Your task to perform on an android device: see tabs open on other devices in the chrome app Image 0: 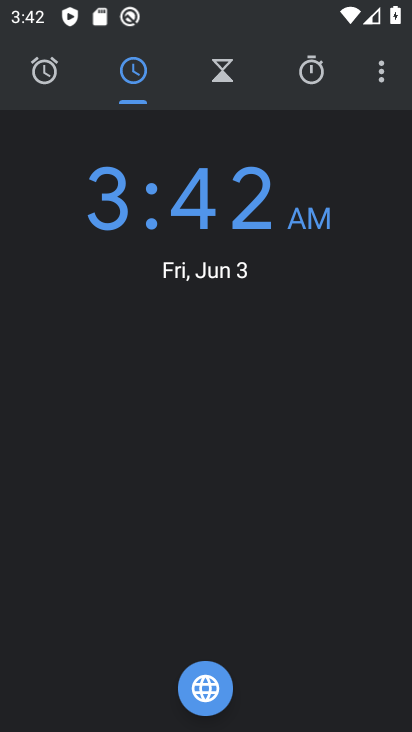
Step 0: press home button
Your task to perform on an android device: see tabs open on other devices in the chrome app Image 1: 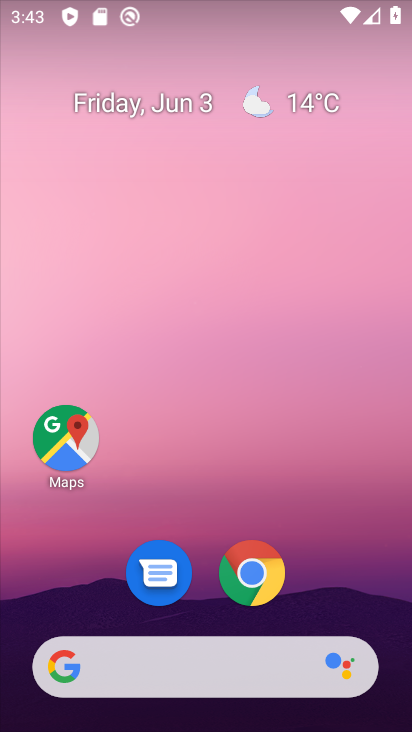
Step 1: click (244, 581)
Your task to perform on an android device: see tabs open on other devices in the chrome app Image 2: 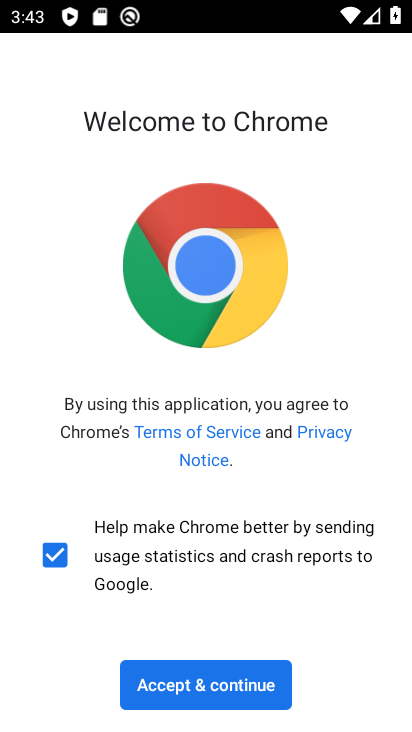
Step 2: click (187, 681)
Your task to perform on an android device: see tabs open on other devices in the chrome app Image 3: 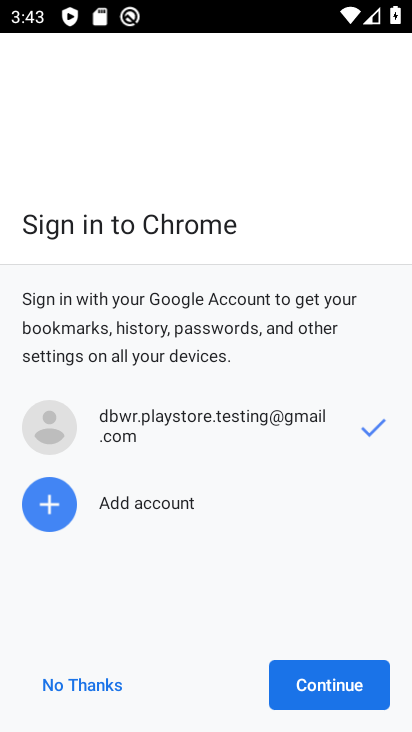
Step 3: click (298, 682)
Your task to perform on an android device: see tabs open on other devices in the chrome app Image 4: 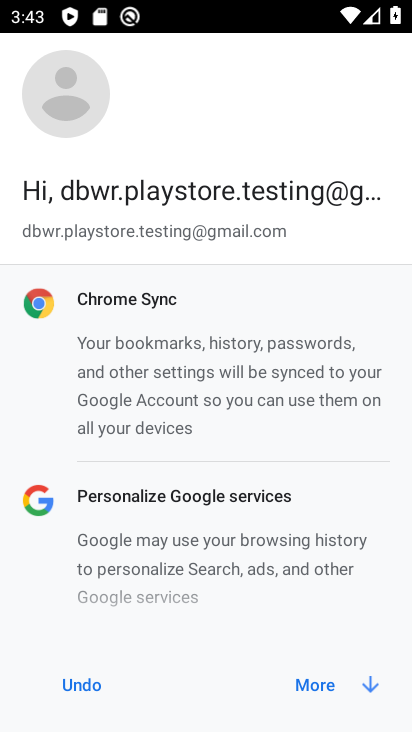
Step 4: click (310, 682)
Your task to perform on an android device: see tabs open on other devices in the chrome app Image 5: 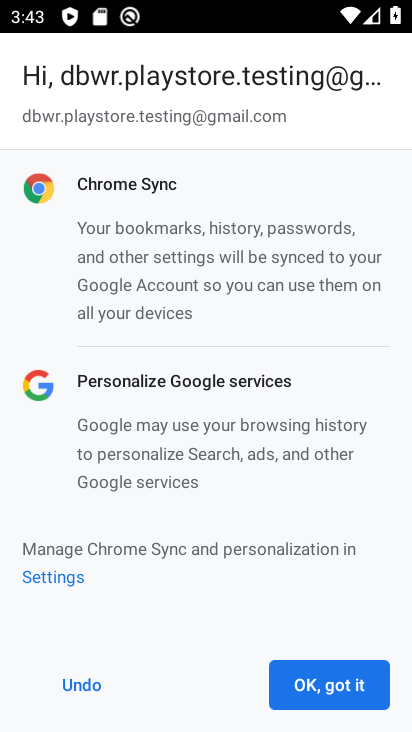
Step 5: click (335, 693)
Your task to perform on an android device: see tabs open on other devices in the chrome app Image 6: 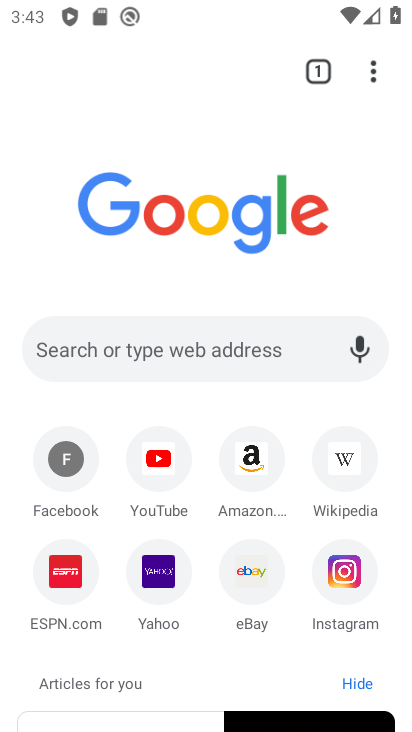
Step 6: click (368, 76)
Your task to perform on an android device: see tabs open on other devices in the chrome app Image 7: 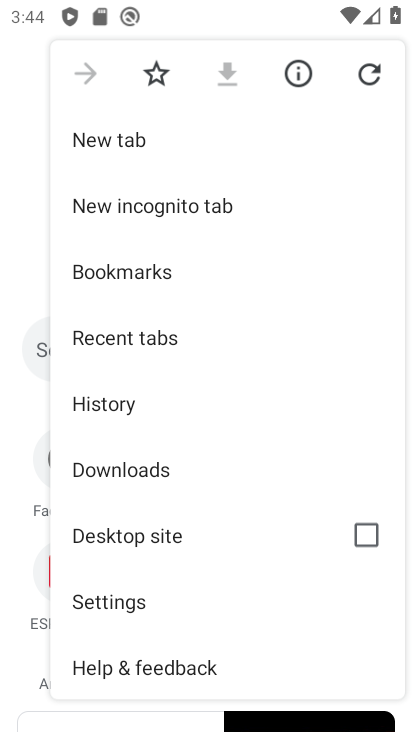
Step 7: click (149, 350)
Your task to perform on an android device: see tabs open on other devices in the chrome app Image 8: 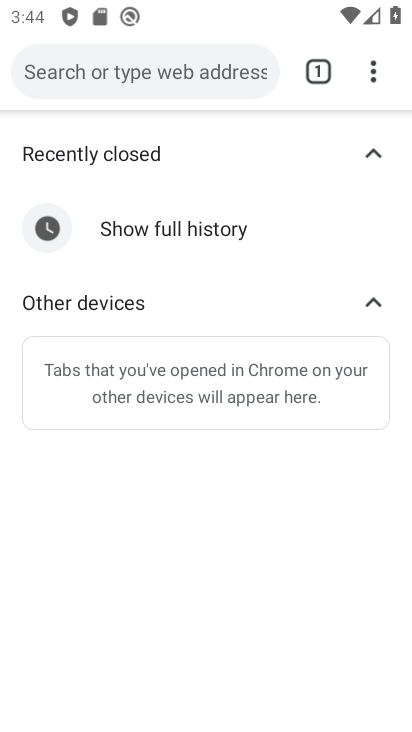
Step 8: task complete